Your task to perform on an android device: find which apps use the phone's location Image 0: 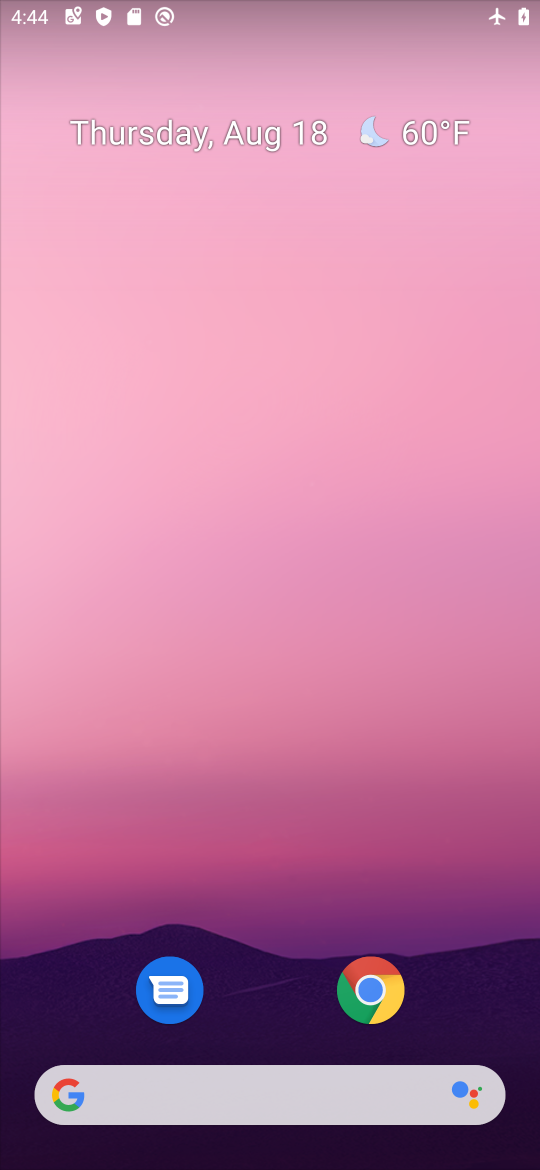
Step 0: drag from (200, 873) to (313, 207)
Your task to perform on an android device: find which apps use the phone's location Image 1: 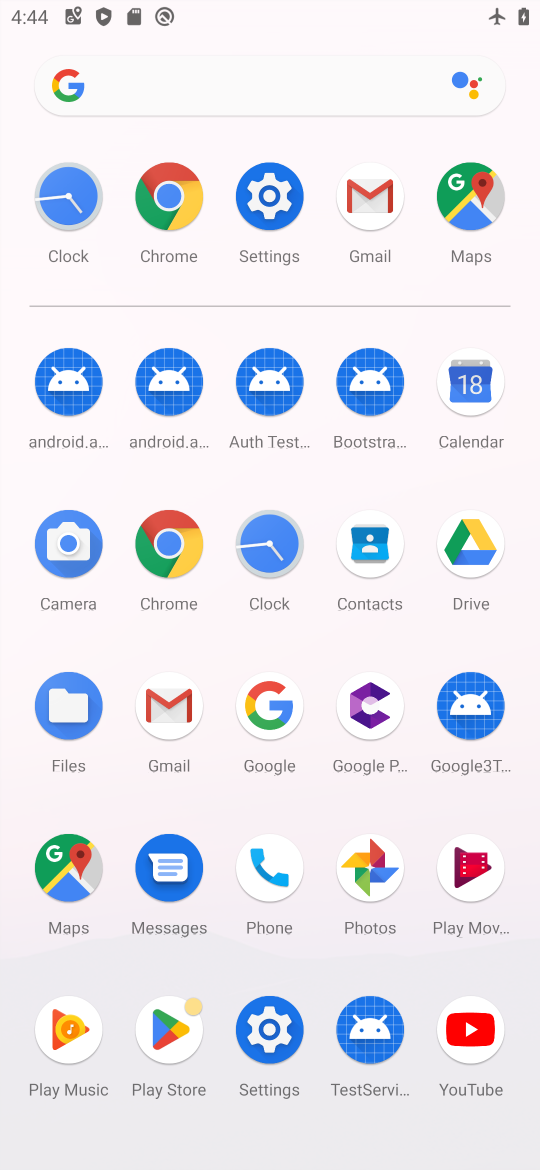
Step 1: click (280, 1046)
Your task to perform on an android device: find which apps use the phone's location Image 2: 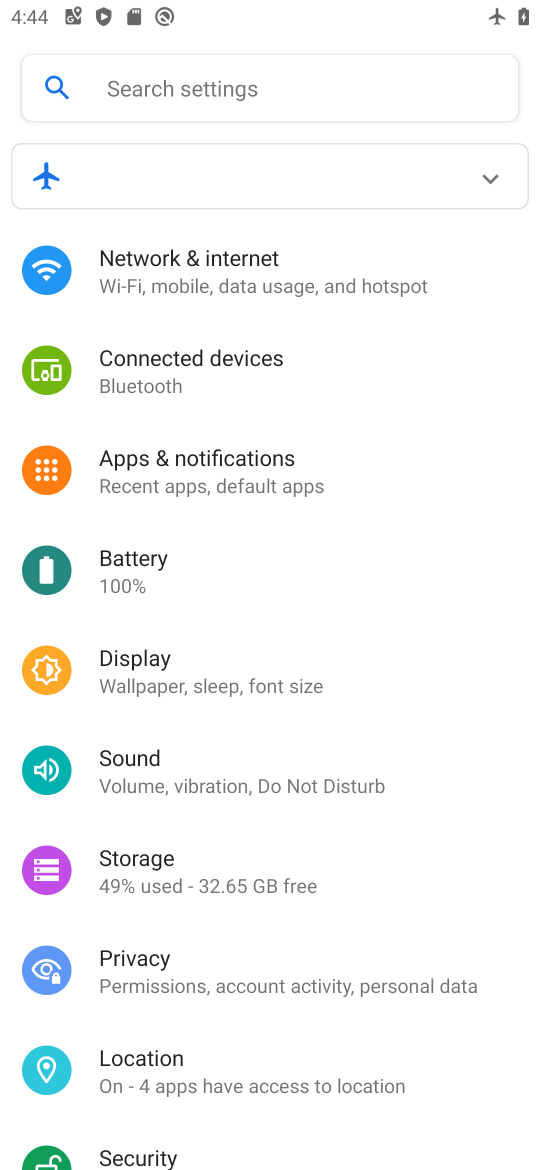
Step 2: click (171, 1093)
Your task to perform on an android device: find which apps use the phone's location Image 3: 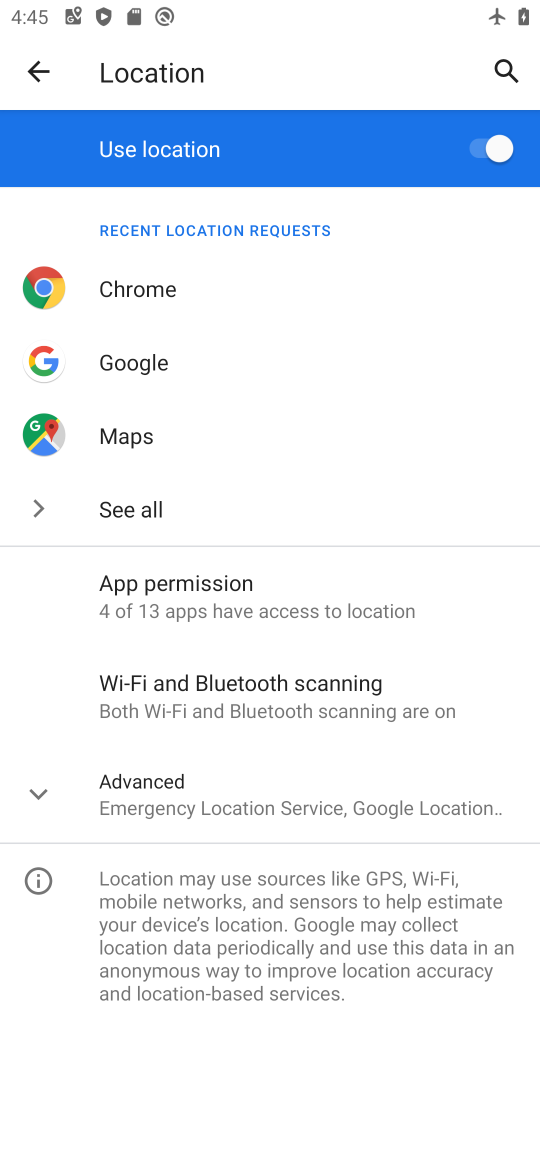
Step 3: click (136, 606)
Your task to perform on an android device: find which apps use the phone's location Image 4: 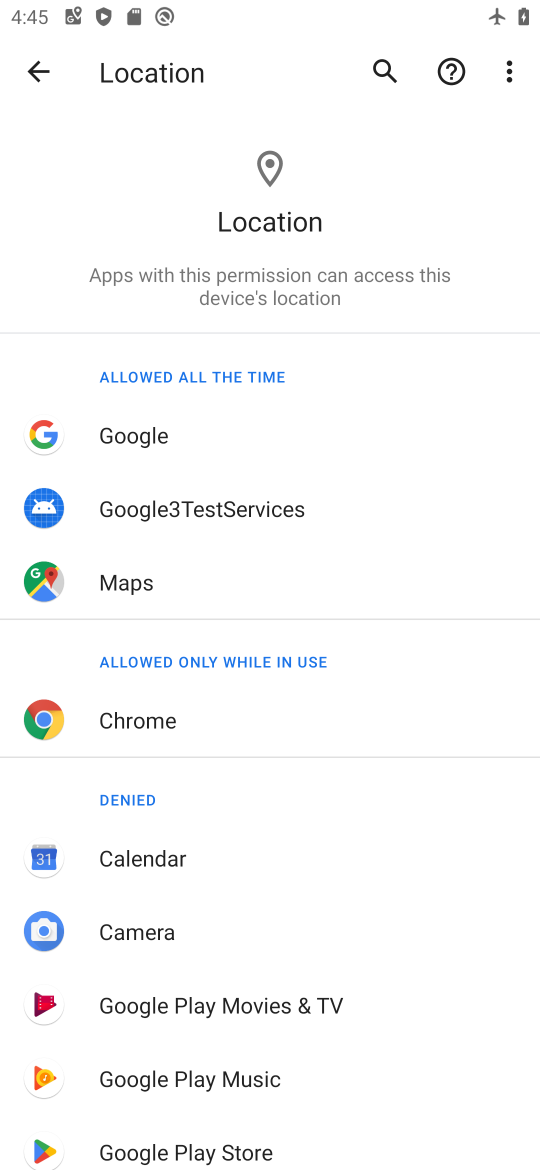
Step 4: task complete